Your task to perform on an android device: turn on location history Image 0: 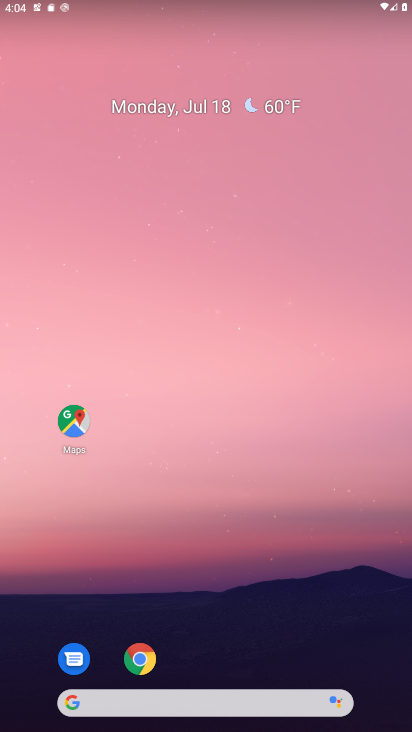
Step 0: drag from (143, 707) to (225, 49)
Your task to perform on an android device: turn on location history Image 1: 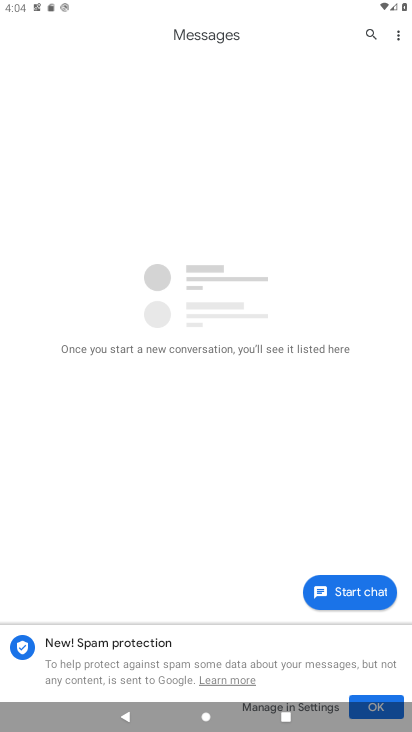
Step 1: press home button
Your task to perform on an android device: turn on location history Image 2: 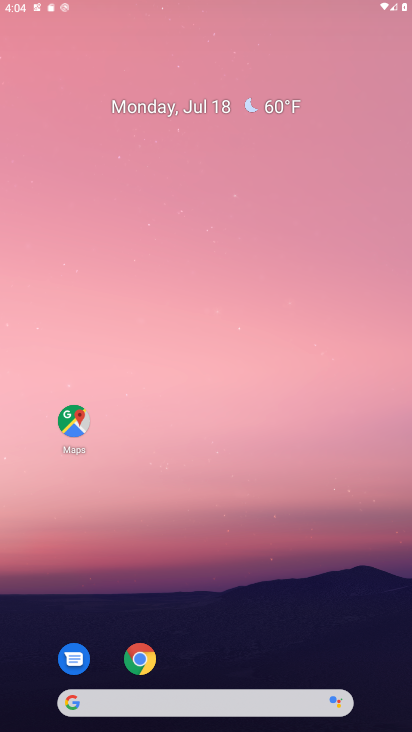
Step 2: drag from (168, 696) to (167, 93)
Your task to perform on an android device: turn on location history Image 3: 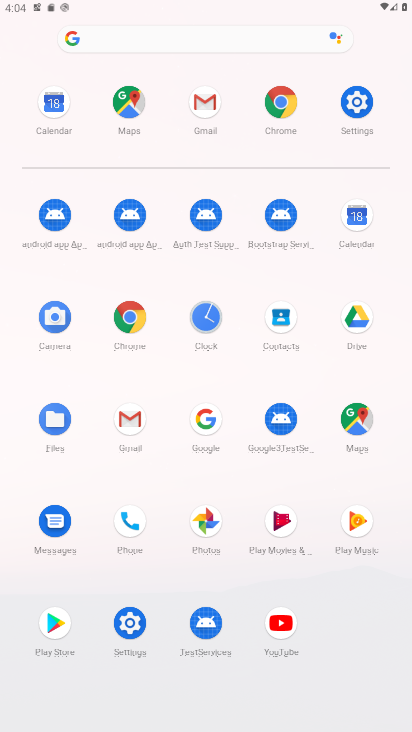
Step 3: click (352, 106)
Your task to perform on an android device: turn on location history Image 4: 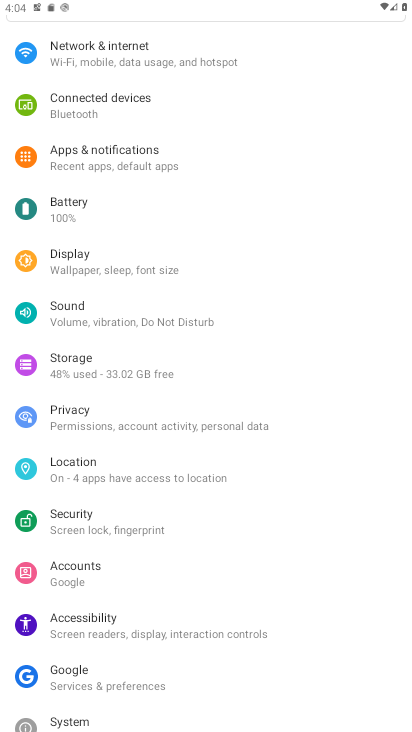
Step 4: click (120, 483)
Your task to perform on an android device: turn on location history Image 5: 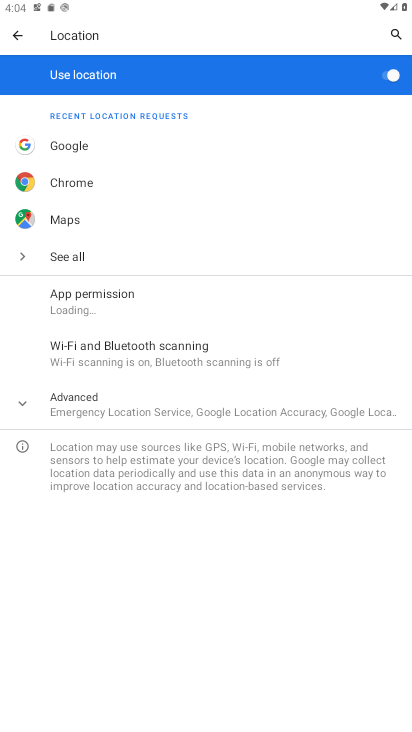
Step 5: click (160, 408)
Your task to perform on an android device: turn on location history Image 6: 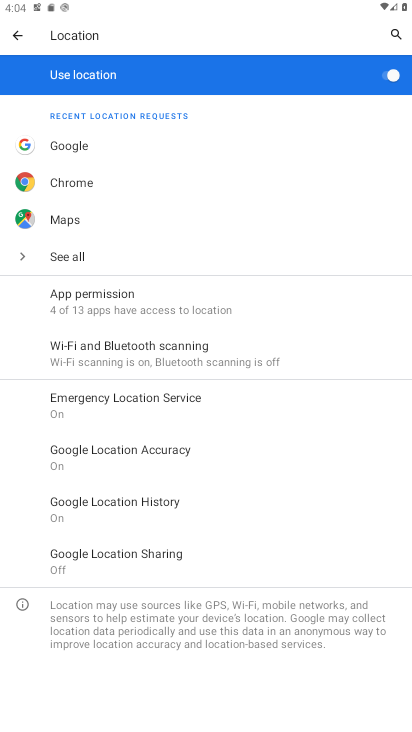
Step 6: click (154, 510)
Your task to perform on an android device: turn on location history Image 7: 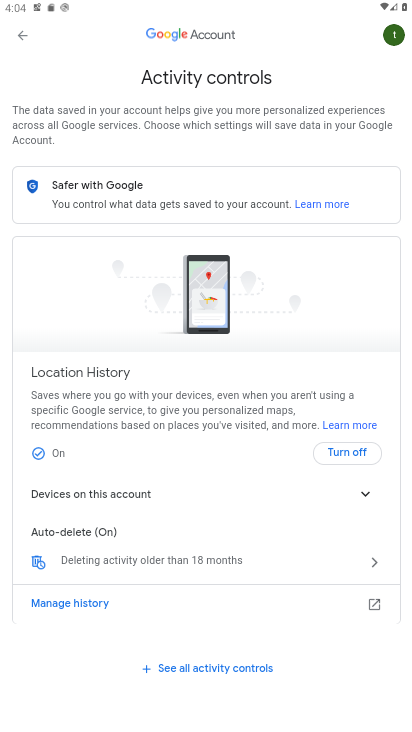
Step 7: task complete